Your task to perform on an android device: delete a single message in the gmail app Image 0: 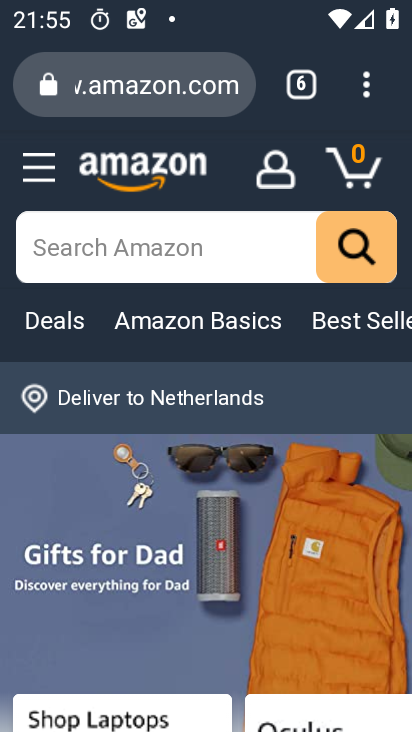
Step 0: press home button
Your task to perform on an android device: delete a single message in the gmail app Image 1: 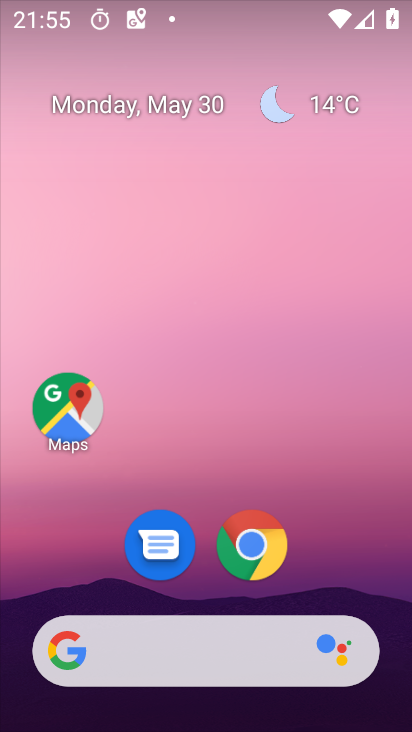
Step 1: drag from (329, 567) to (289, 78)
Your task to perform on an android device: delete a single message in the gmail app Image 2: 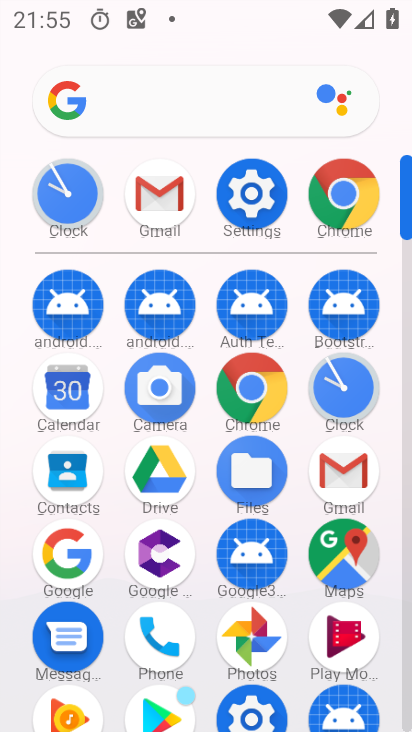
Step 2: click (340, 476)
Your task to perform on an android device: delete a single message in the gmail app Image 3: 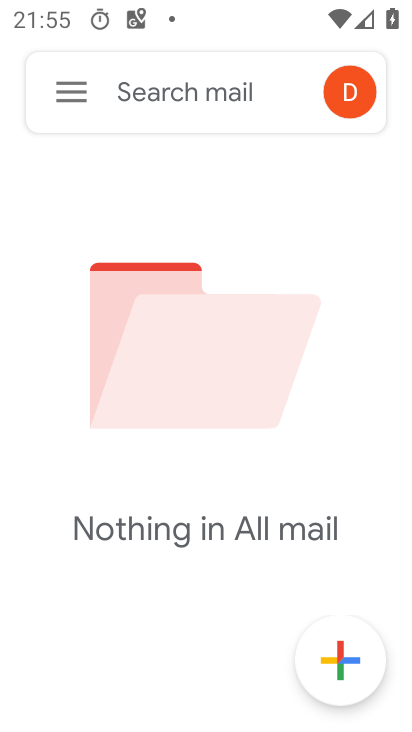
Step 3: task complete